Your task to perform on an android device: check data usage Image 0: 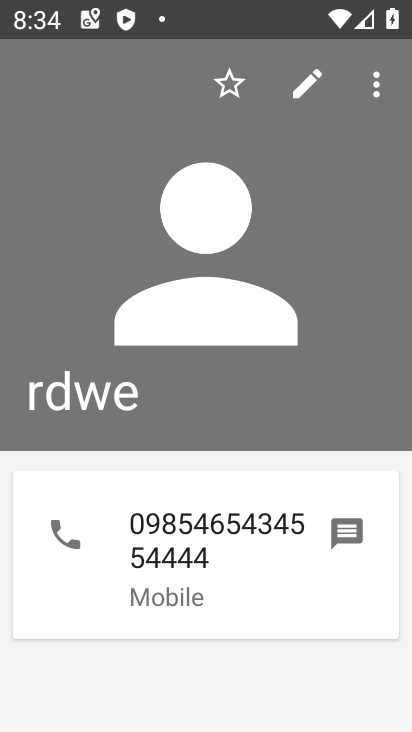
Step 0: press home button
Your task to perform on an android device: check data usage Image 1: 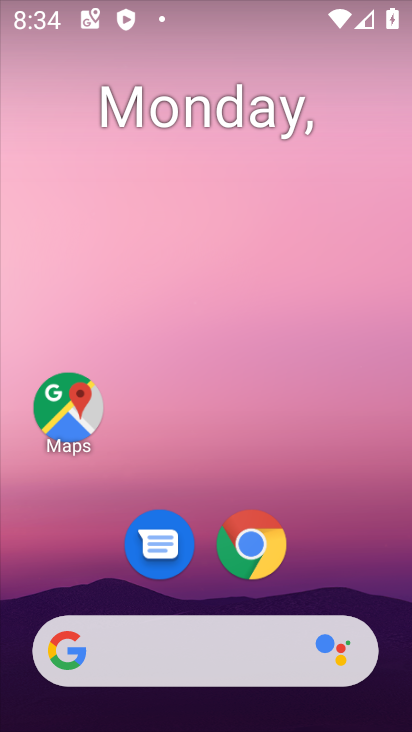
Step 1: drag from (344, 553) to (270, 83)
Your task to perform on an android device: check data usage Image 2: 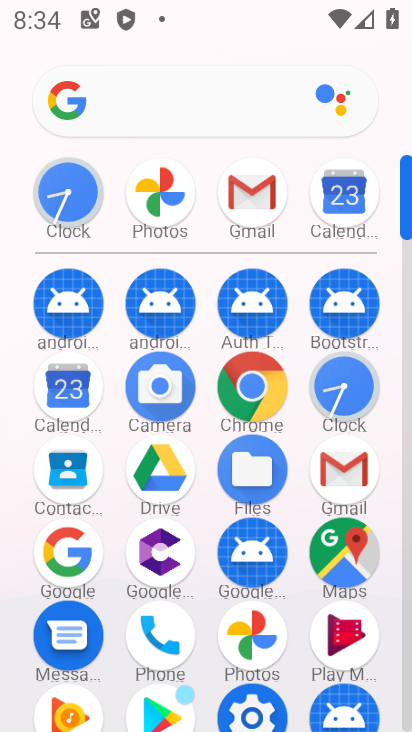
Step 2: click (258, 708)
Your task to perform on an android device: check data usage Image 3: 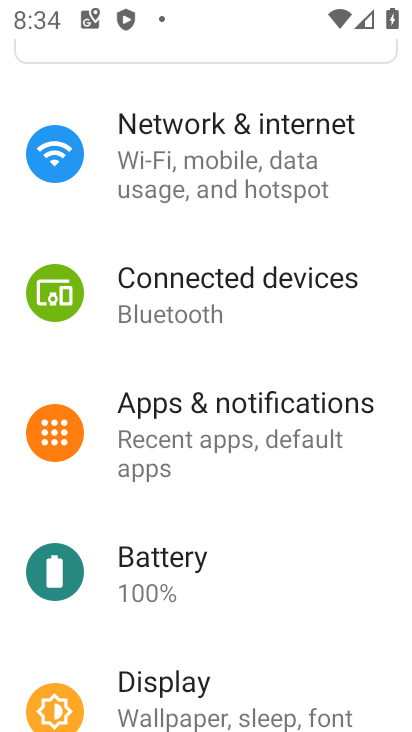
Step 3: click (211, 133)
Your task to perform on an android device: check data usage Image 4: 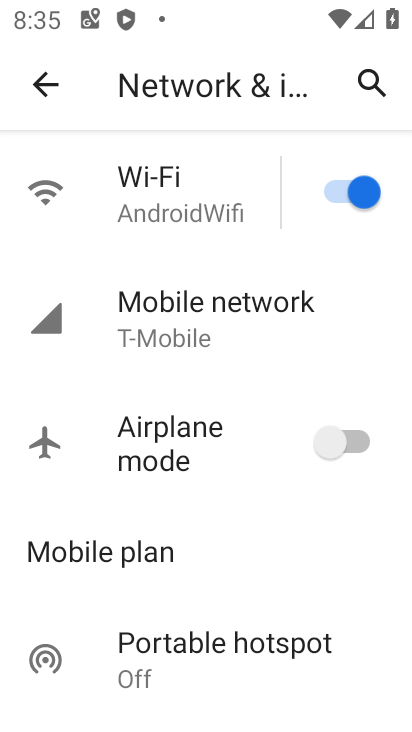
Step 4: click (218, 297)
Your task to perform on an android device: check data usage Image 5: 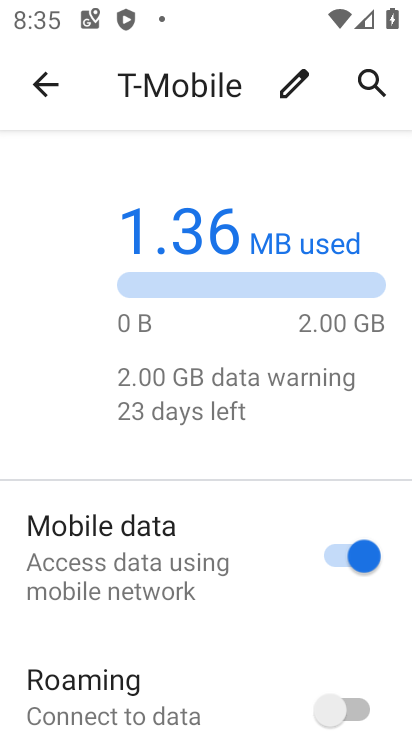
Step 5: task complete